Your task to perform on an android device: When is my next meeting? Image 0: 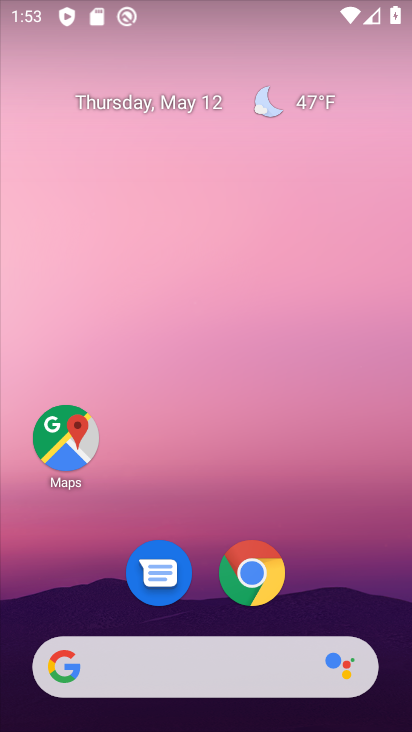
Step 0: click (175, 97)
Your task to perform on an android device: When is my next meeting? Image 1: 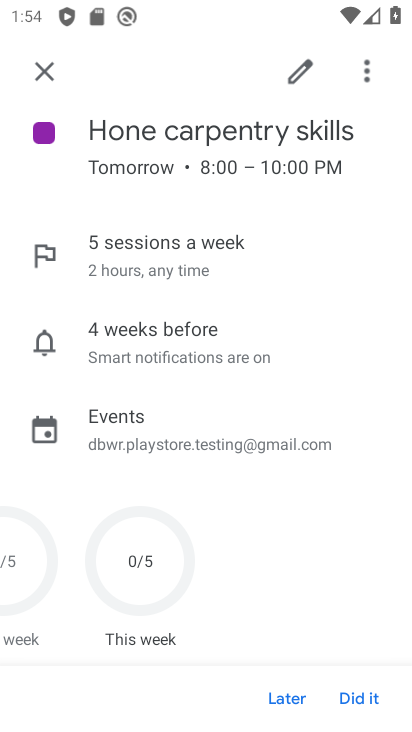
Step 1: task complete